Your task to perform on an android device: Show me popular videos on Youtube Image 0: 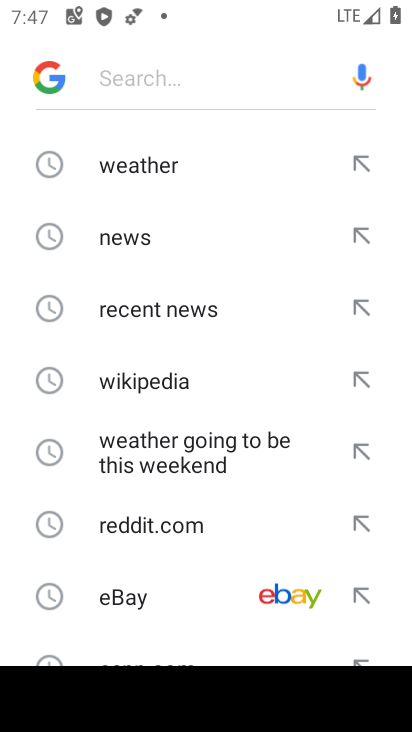
Step 0: press home button
Your task to perform on an android device: Show me popular videos on Youtube Image 1: 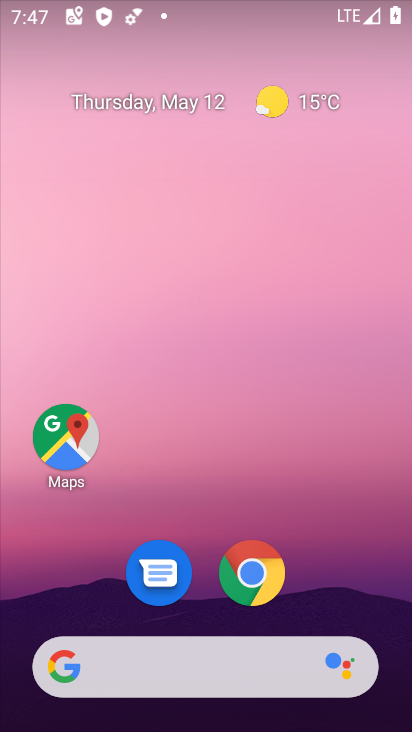
Step 1: drag from (323, 479) to (275, 60)
Your task to perform on an android device: Show me popular videos on Youtube Image 2: 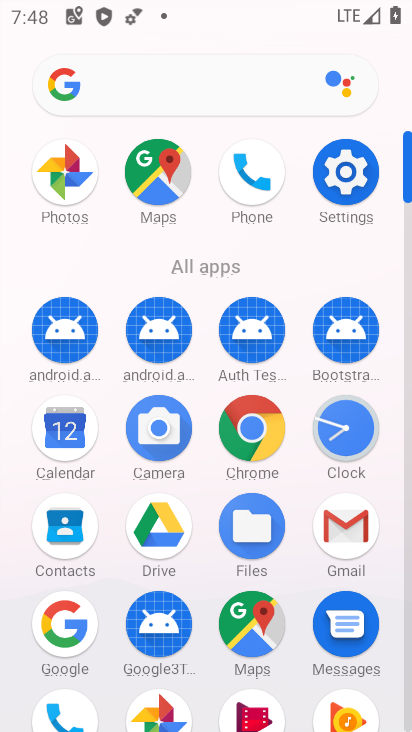
Step 2: drag from (302, 502) to (327, 146)
Your task to perform on an android device: Show me popular videos on Youtube Image 3: 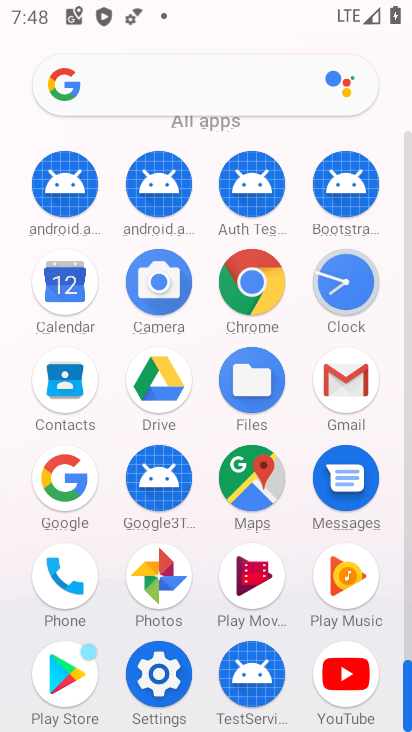
Step 3: click (354, 664)
Your task to perform on an android device: Show me popular videos on Youtube Image 4: 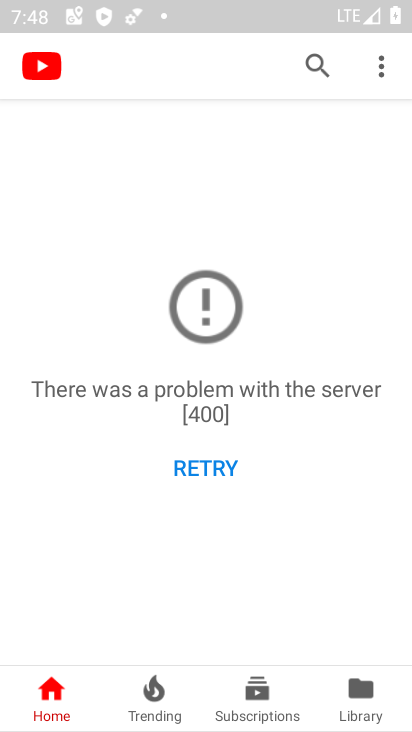
Step 4: click (219, 456)
Your task to perform on an android device: Show me popular videos on Youtube Image 5: 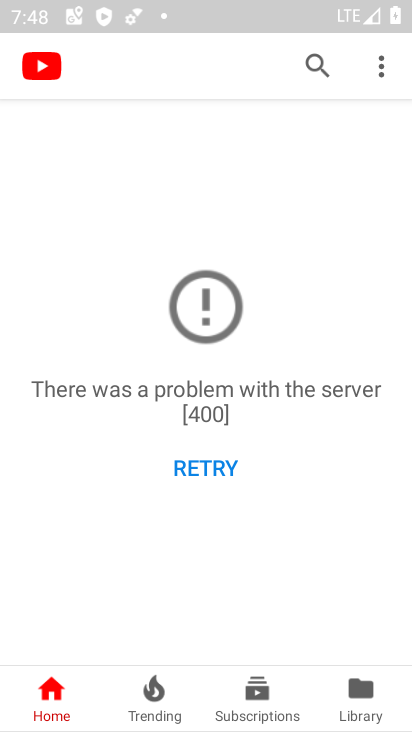
Step 5: task complete